Your task to perform on an android device: turn off smart reply in the gmail app Image 0: 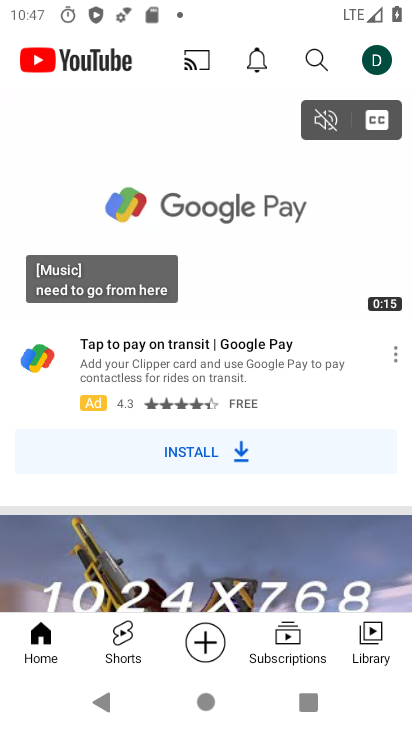
Step 0: press home button
Your task to perform on an android device: turn off smart reply in the gmail app Image 1: 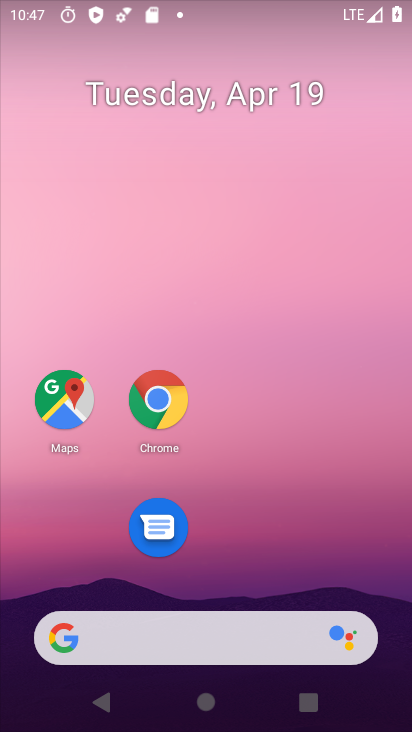
Step 1: drag from (219, 512) to (289, 306)
Your task to perform on an android device: turn off smart reply in the gmail app Image 2: 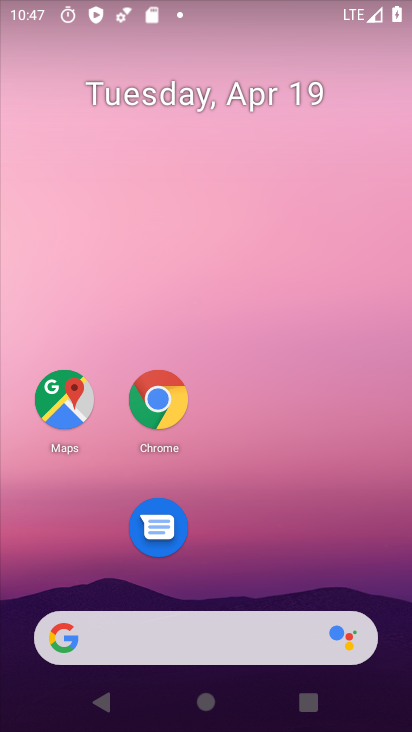
Step 2: drag from (255, 683) to (400, 5)
Your task to perform on an android device: turn off smart reply in the gmail app Image 3: 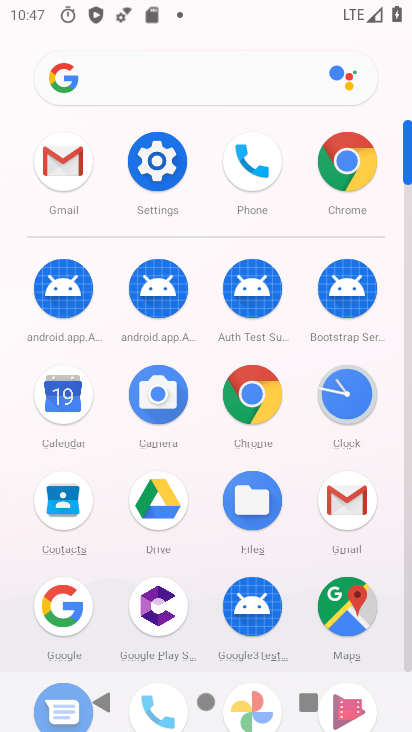
Step 3: click (323, 502)
Your task to perform on an android device: turn off smart reply in the gmail app Image 4: 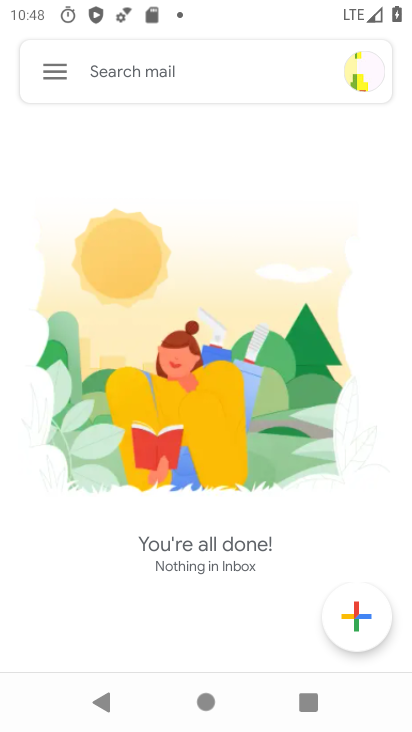
Step 4: click (50, 75)
Your task to perform on an android device: turn off smart reply in the gmail app Image 5: 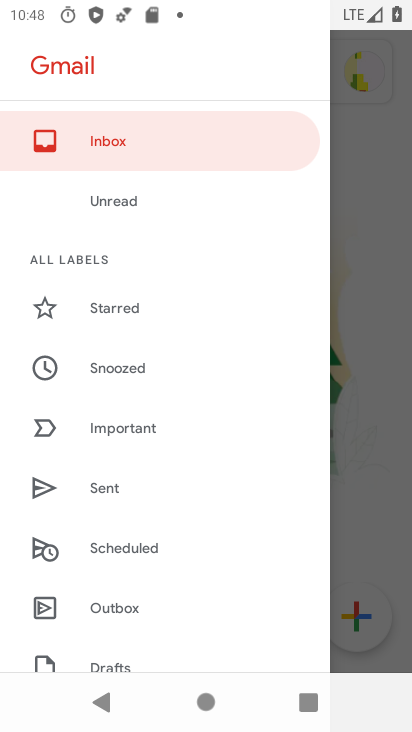
Step 5: drag from (84, 585) to (240, 294)
Your task to perform on an android device: turn off smart reply in the gmail app Image 6: 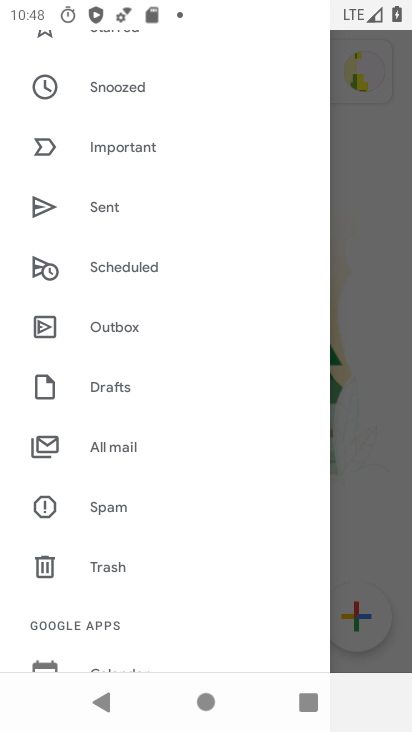
Step 6: drag from (139, 566) to (265, 345)
Your task to perform on an android device: turn off smart reply in the gmail app Image 7: 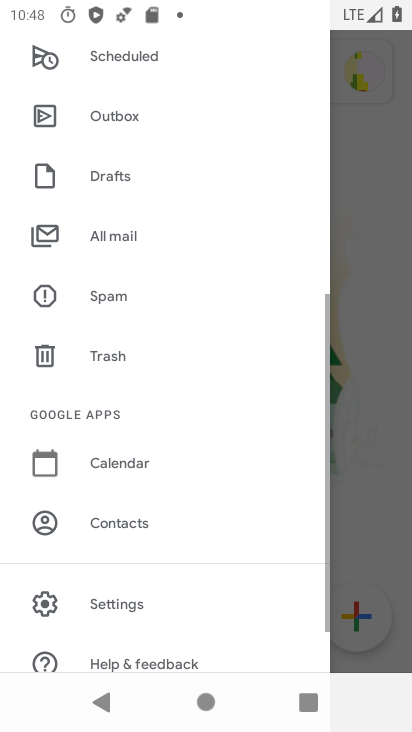
Step 7: click (128, 598)
Your task to perform on an android device: turn off smart reply in the gmail app Image 8: 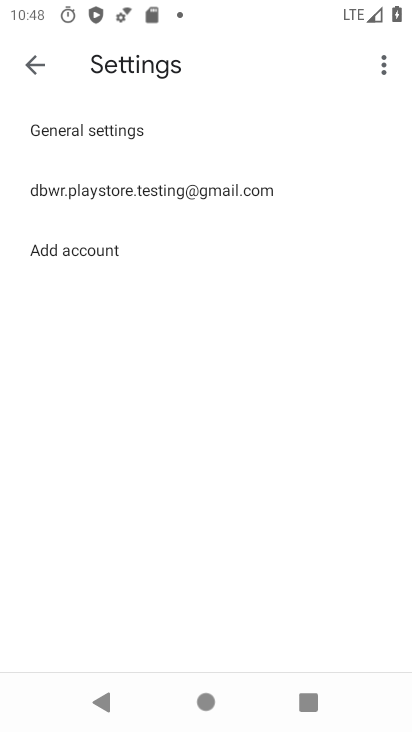
Step 8: click (159, 191)
Your task to perform on an android device: turn off smart reply in the gmail app Image 9: 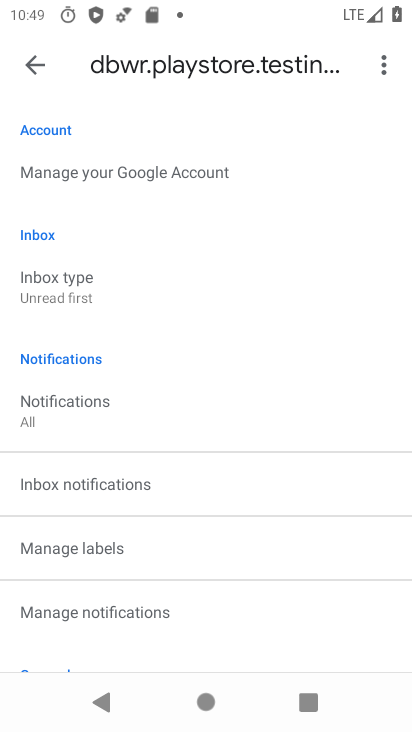
Step 9: drag from (144, 474) to (231, 170)
Your task to perform on an android device: turn off smart reply in the gmail app Image 10: 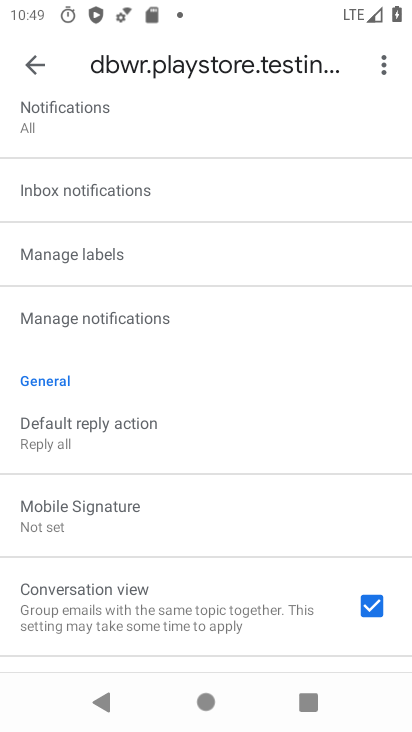
Step 10: drag from (127, 522) to (247, 167)
Your task to perform on an android device: turn off smart reply in the gmail app Image 11: 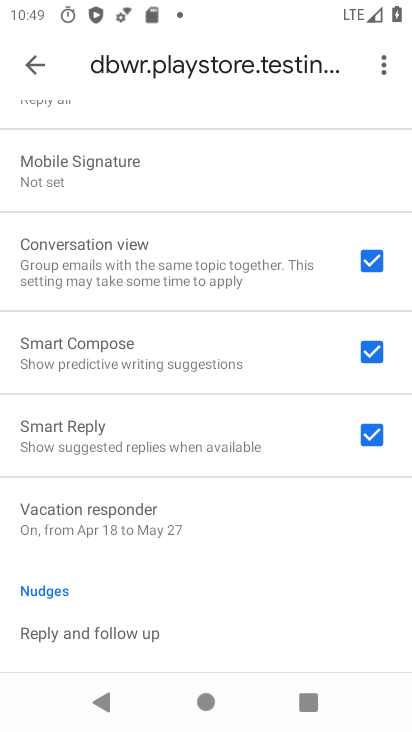
Step 11: drag from (168, 579) to (201, 468)
Your task to perform on an android device: turn off smart reply in the gmail app Image 12: 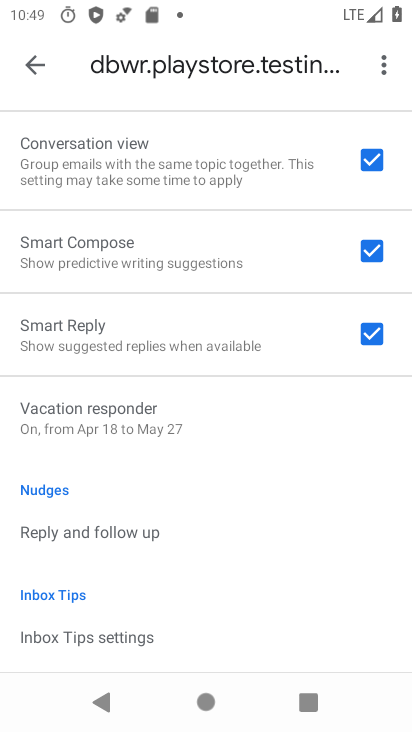
Step 12: click (375, 341)
Your task to perform on an android device: turn off smart reply in the gmail app Image 13: 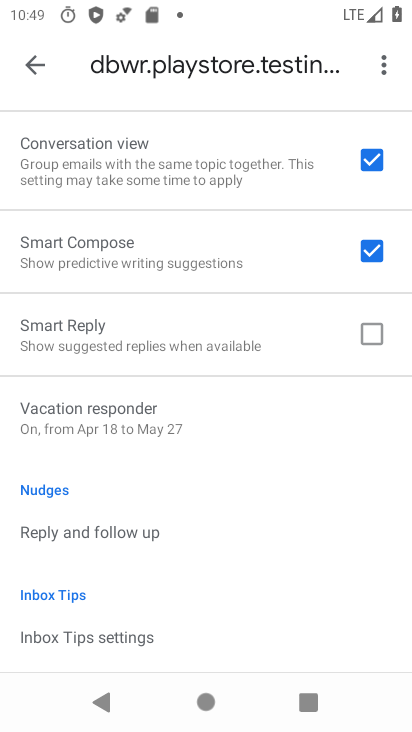
Step 13: task complete